Your task to perform on an android device: turn off picture-in-picture Image 0: 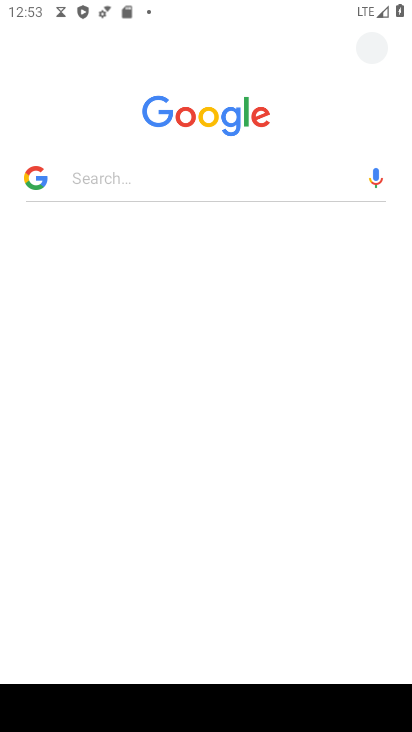
Step 0: press home button
Your task to perform on an android device: turn off picture-in-picture Image 1: 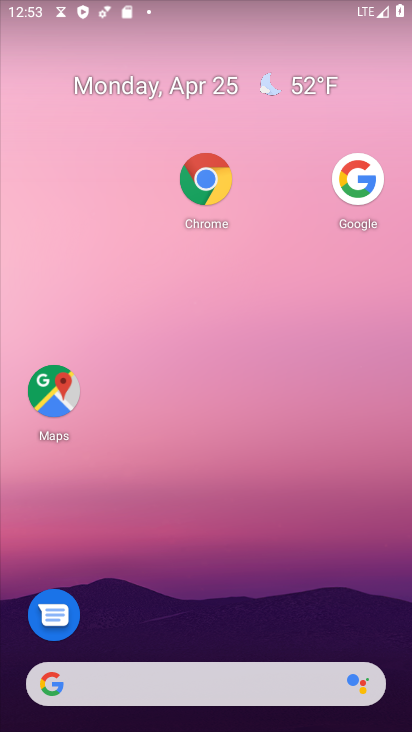
Step 1: click (199, 184)
Your task to perform on an android device: turn off picture-in-picture Image 2: 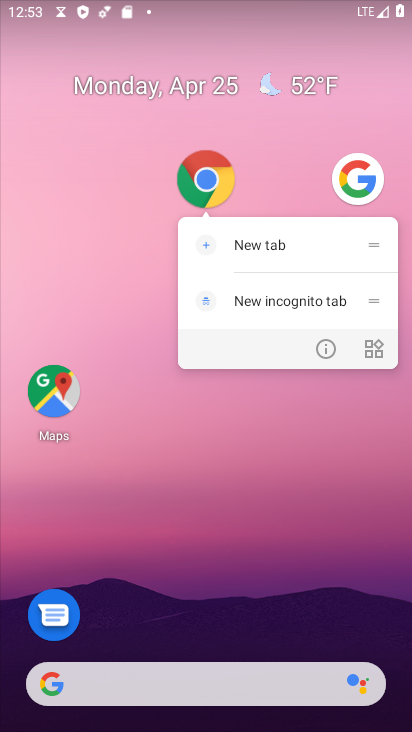
Step 2: click (331, 348)
Your task to perform on an android device: turn off picture-in-picture Image 3: 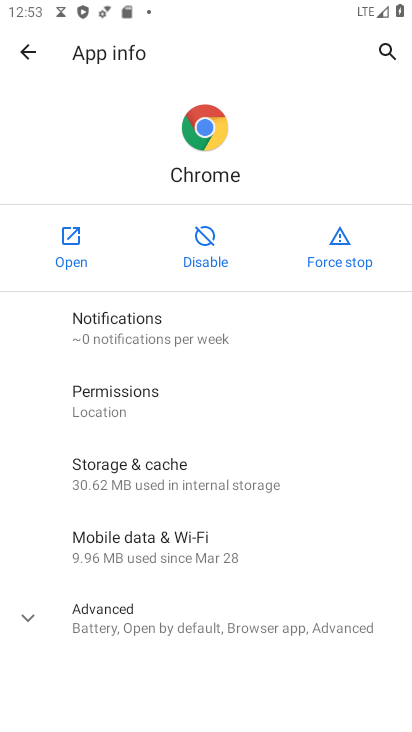
Step 3: drag from (207, 589) to (339, 170)
Your task to perform on an android device: turn off picture-in-picture Image 4: 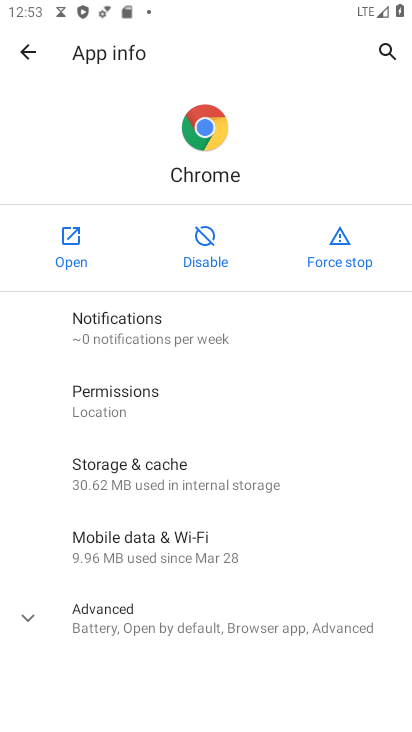
Step 4: click (117, 623)
Your task to perform on an android device: turn off picture-in-picture Image 5: 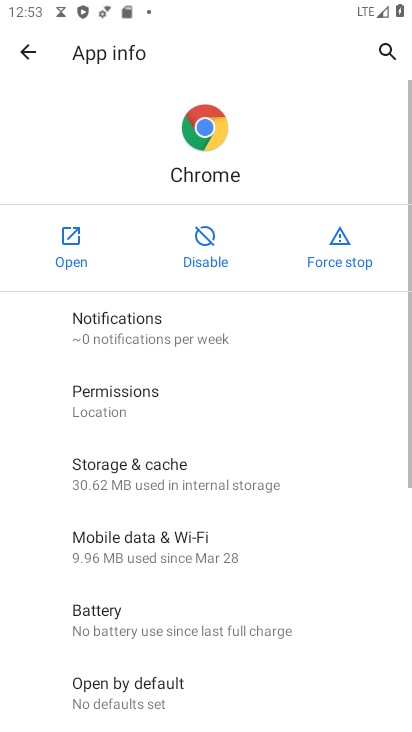
Step 5: drag from (216, 621) to (336, 89)
Your task to perform on an android device: turn off picture-in-picture Image 6: 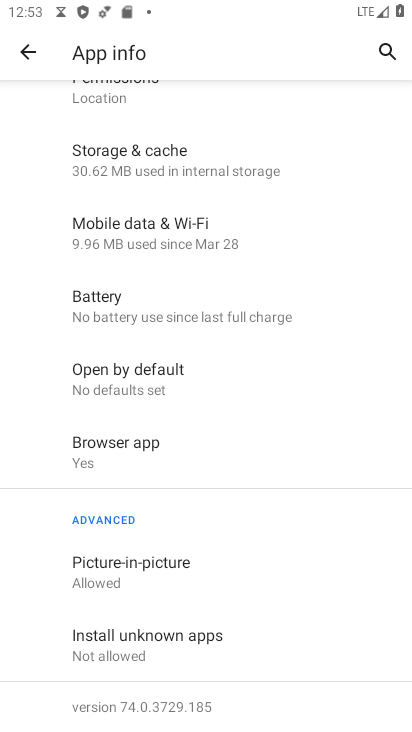
Step 6: click (131, 567)
Your task to perform on an android device: turn off picture-in-picture Image 7: 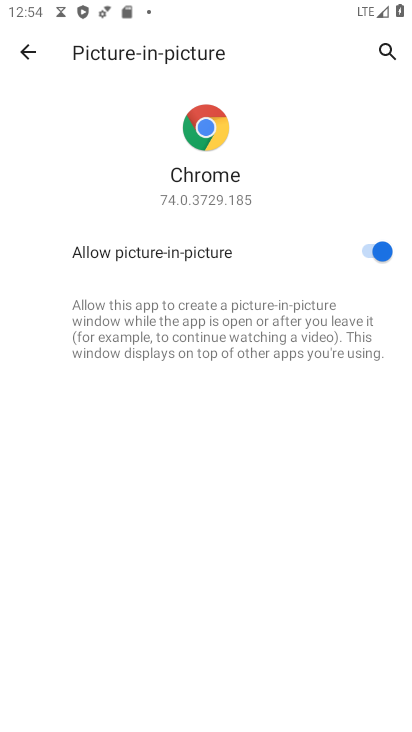
Step 7: click (371, 247)
Your task to perform on an android device: turn off picture-in-picture Image 8: 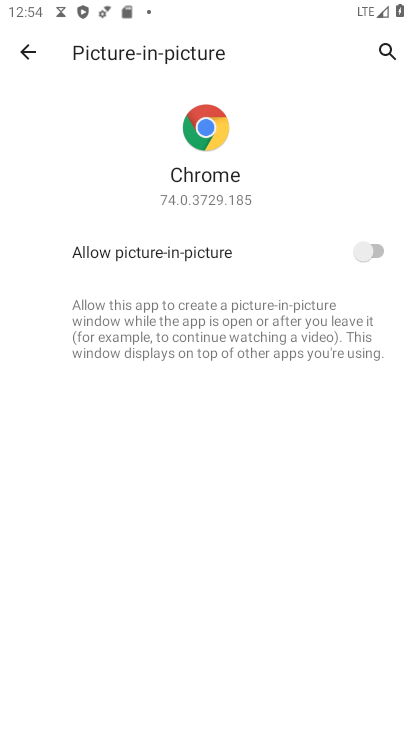
Step 8: task complete